Your task to perform on an android device: Show the shopping cart on newegg. Image 0: 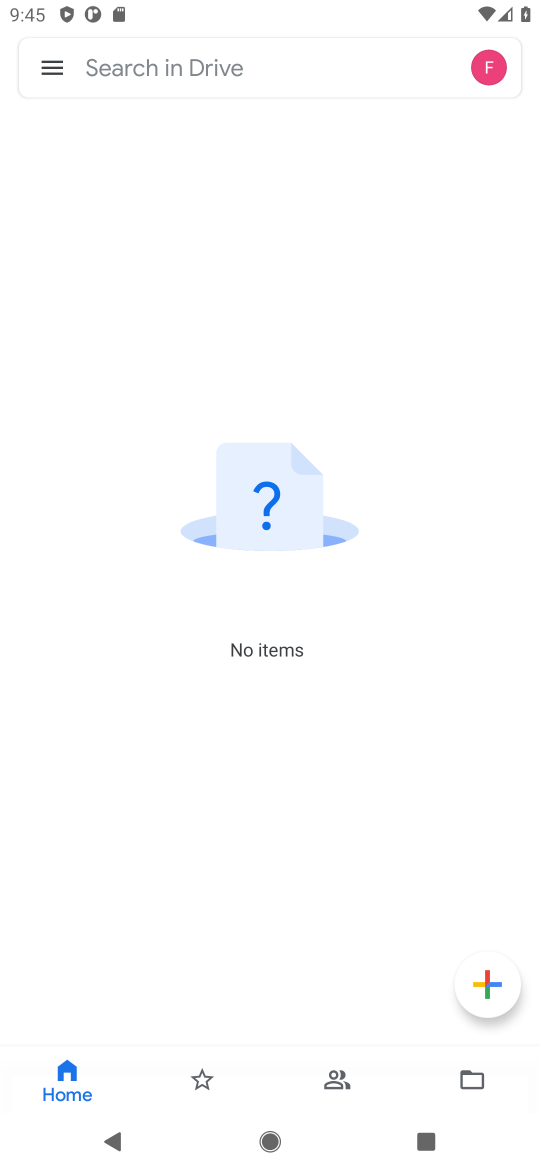
Step 0: press home button
Your task to perform on an android device: Show the shopping cart on newegg. Image 1: 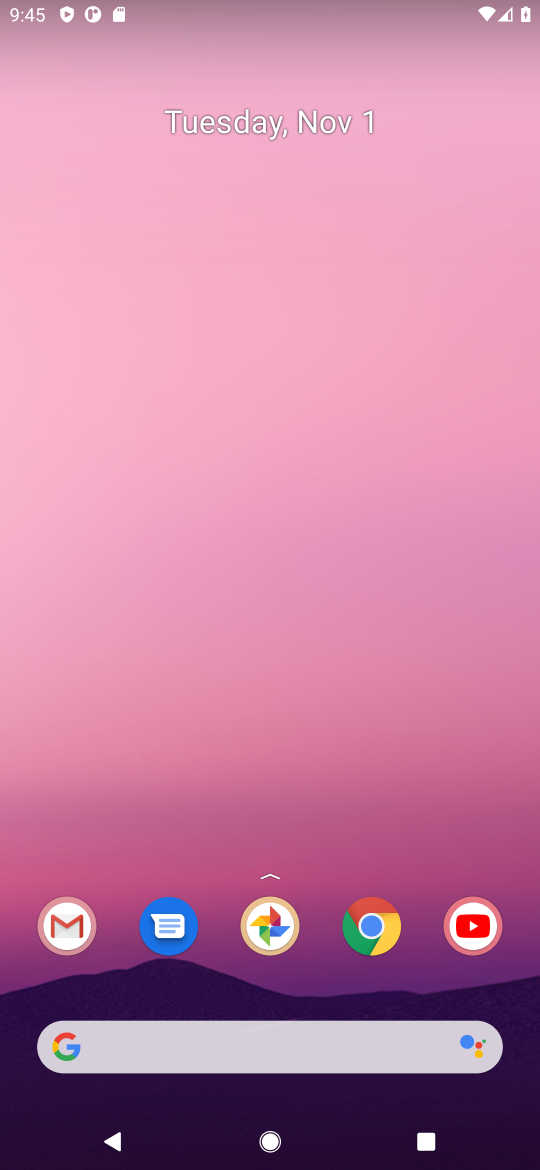
Step 1: click (397, 939)
Your task to perform on an android device: Show the shopping cart on newegg. Image 2: 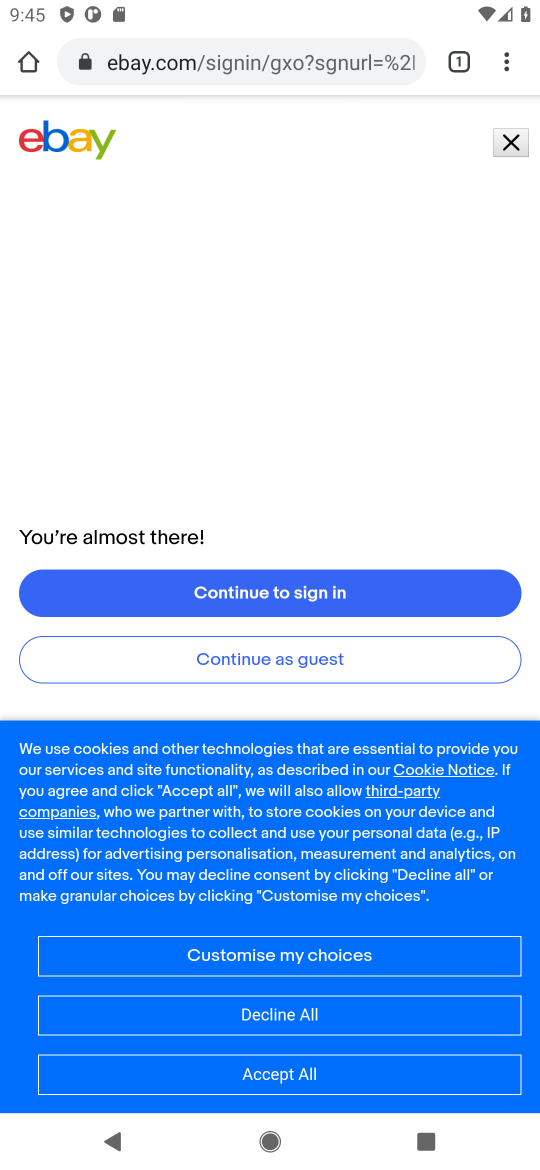
Step 2: click (188, 65)
Your task to perform on an android device: Show the shopping cart on newegg. Image 3: 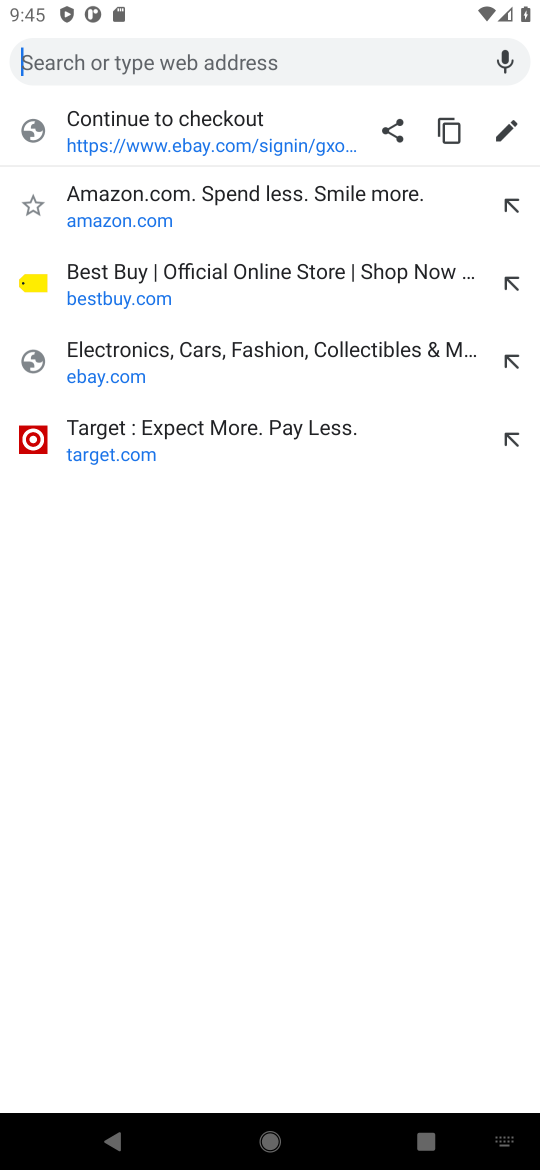
Step 3: type "newegg"
Your task to perform on an android device: Show the shopping cart on newegg. Image 4: 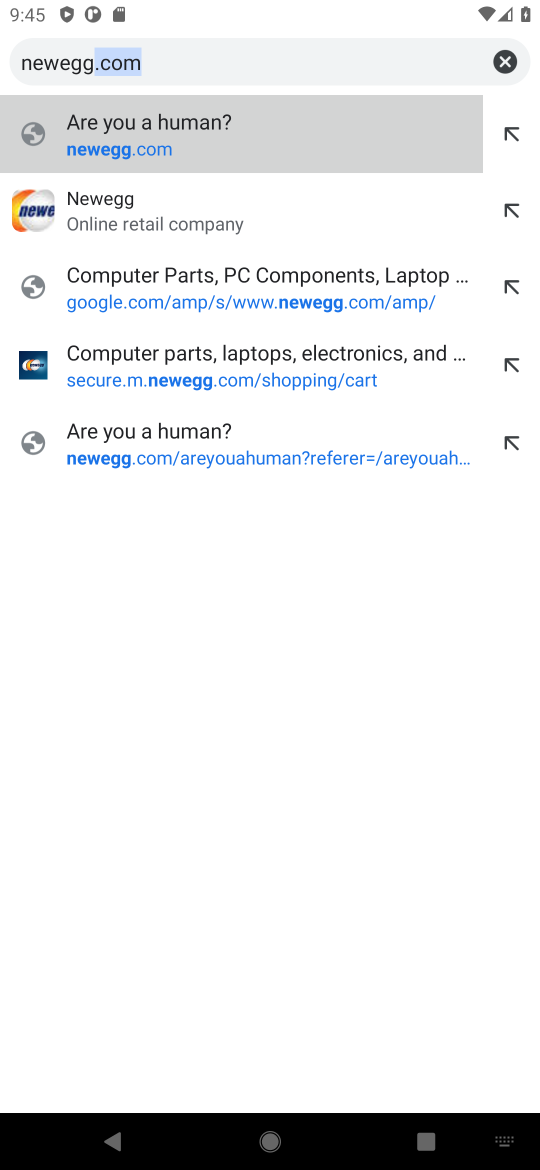
Step 4: type ""
Your task to perform on an android device: Show the shopping cart on newegg. Image 5: 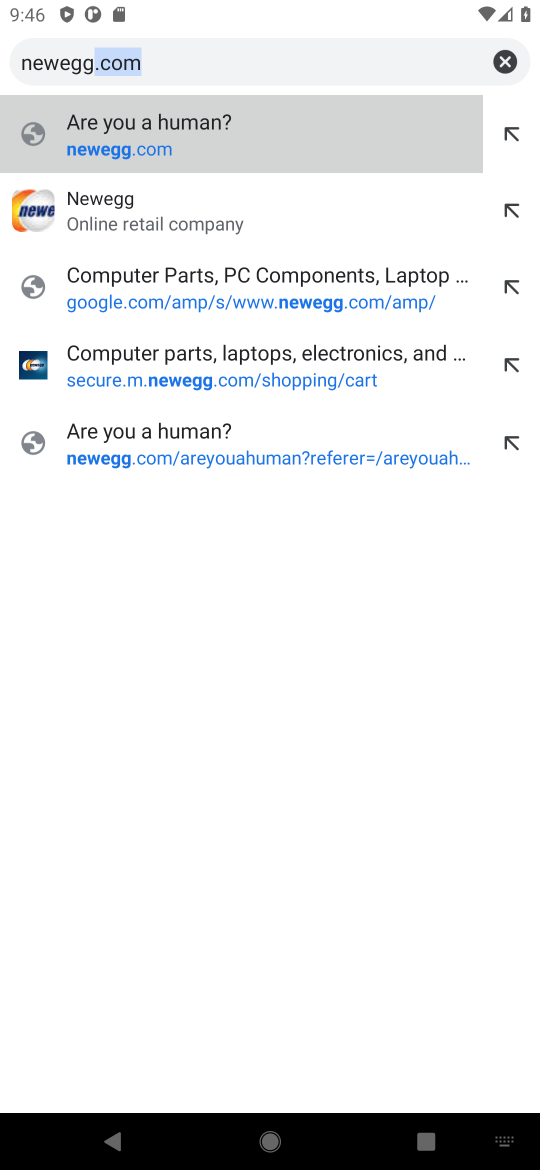
Step 5: click (92, 194)
Your task to perform on an android device: Show the shopping cart on newegg. Image 6: 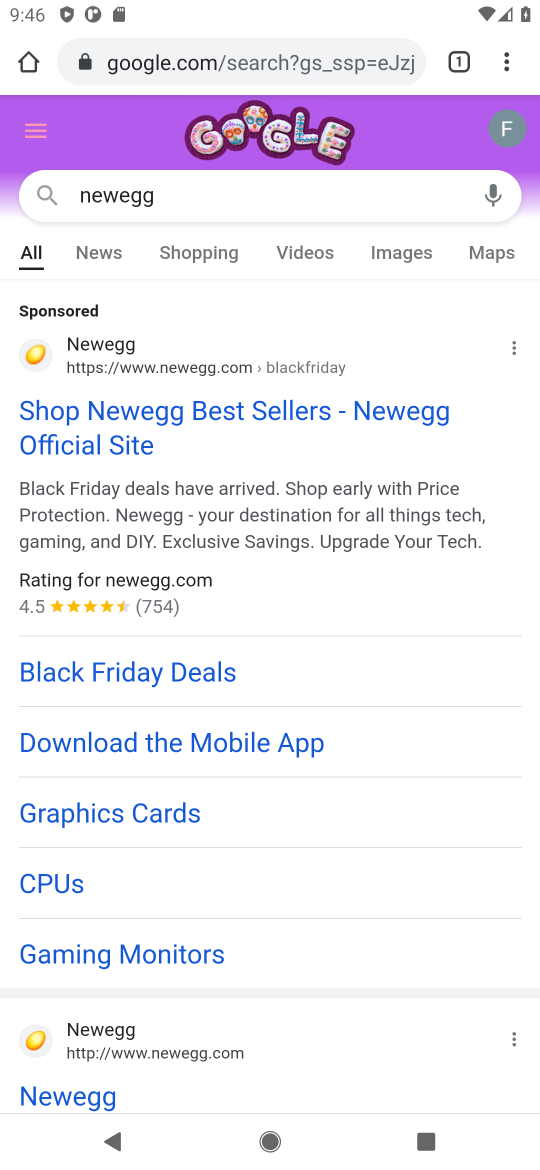
Step 6: drag from (234, 857) to (202, 371)
Your task to perform on an android device: Show the shopping cart on newegg. Image 7: 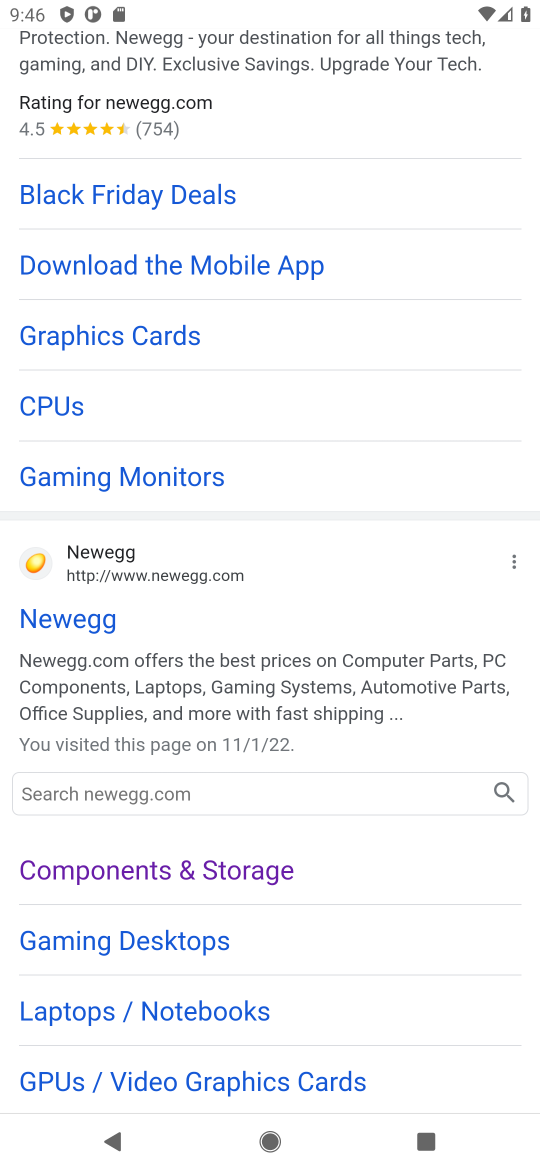
Step 7: click (71, 615)
Your task to perform on an android device: Show the shopping cart on newegg. Image 8: 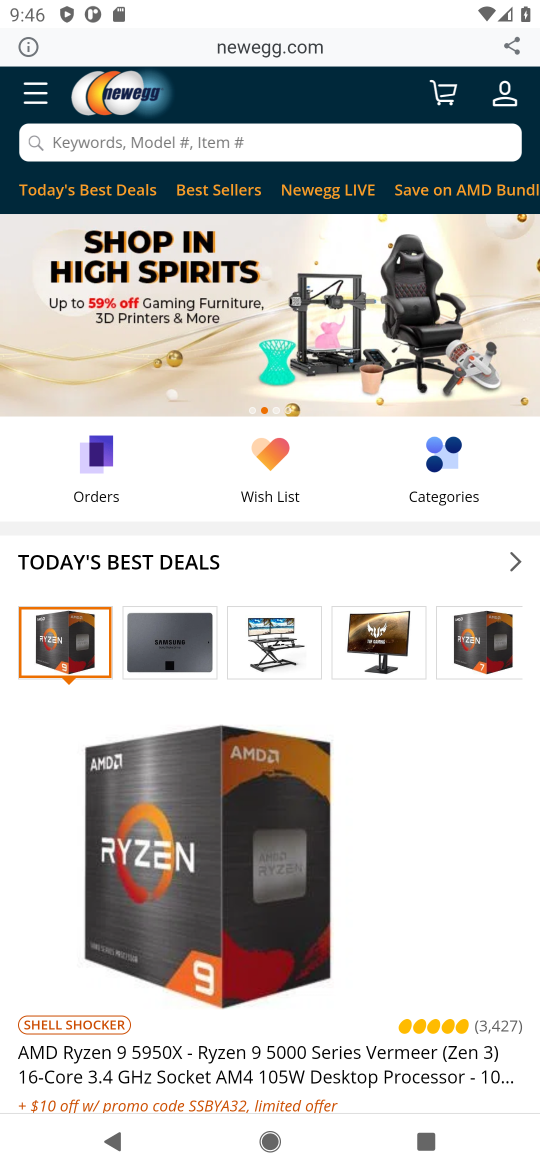
Step 8: click (104, 147)
Your task to perform on an android device: Show the shopping cart on newegg. Image 9: 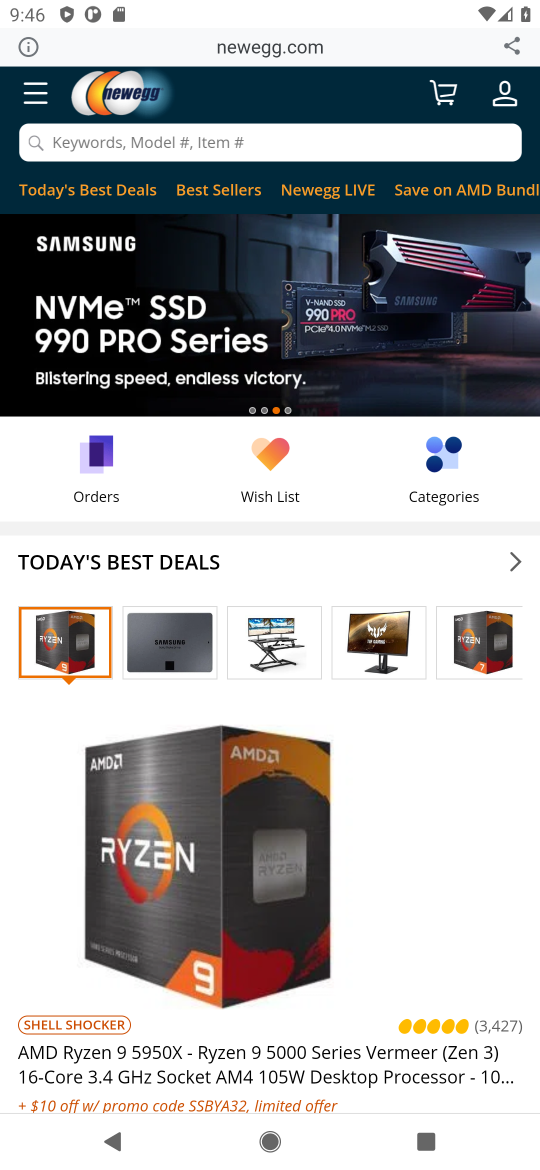
Step 9: click (106, 149)
Your task to perform on an android device: Show the shopping cart on newegg. Image 10: 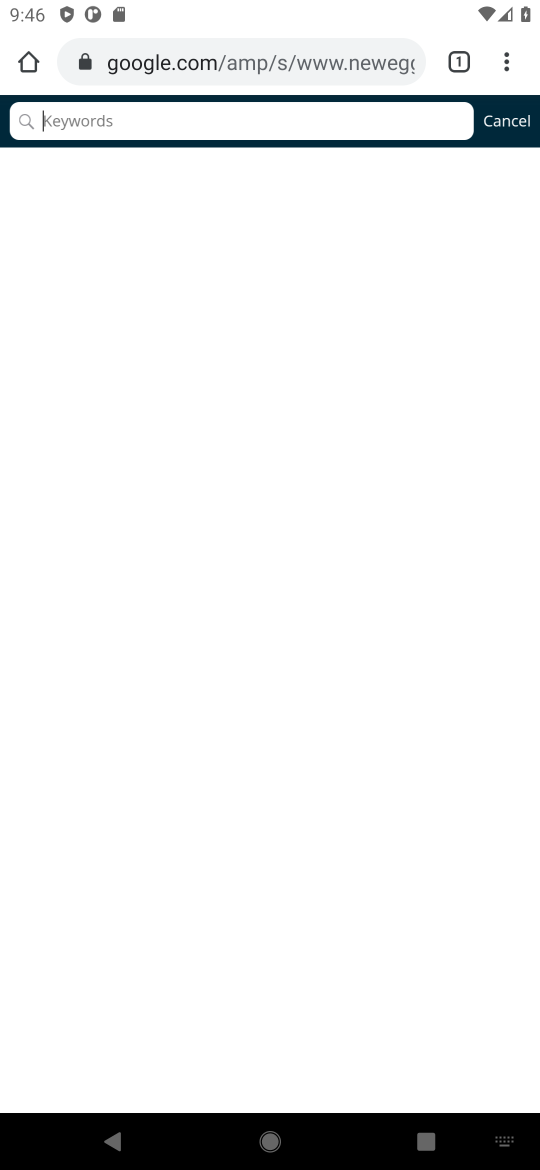
Step 10: press back button
Your task to perform on an android device: Show the shopping cart on newegg. Image 11: 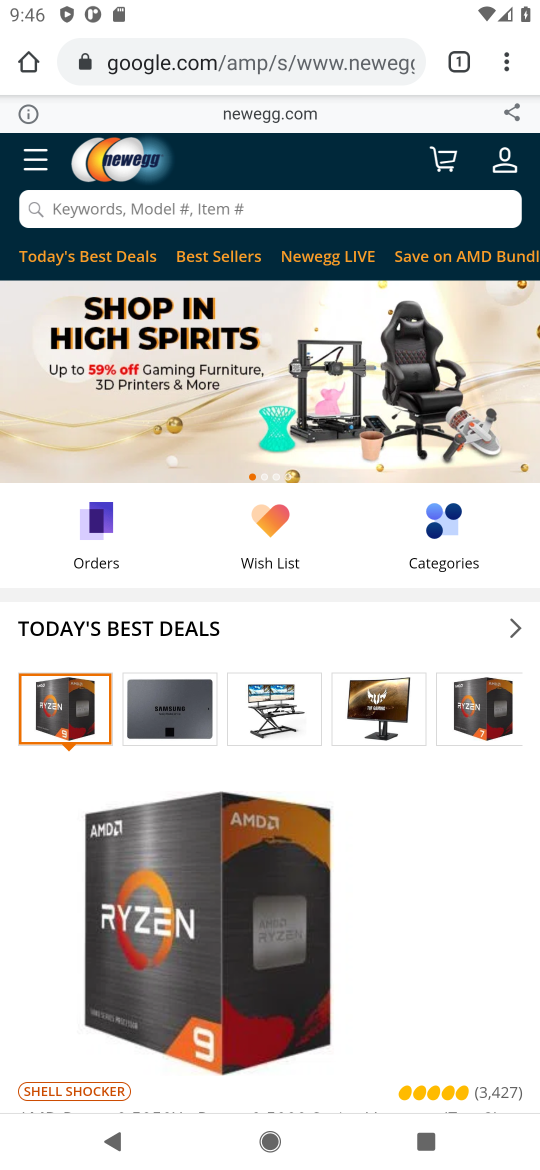
Step 11: click (451, 170)
Your task to perform on an android device: Show the shopping cart on newegg. Image 12: 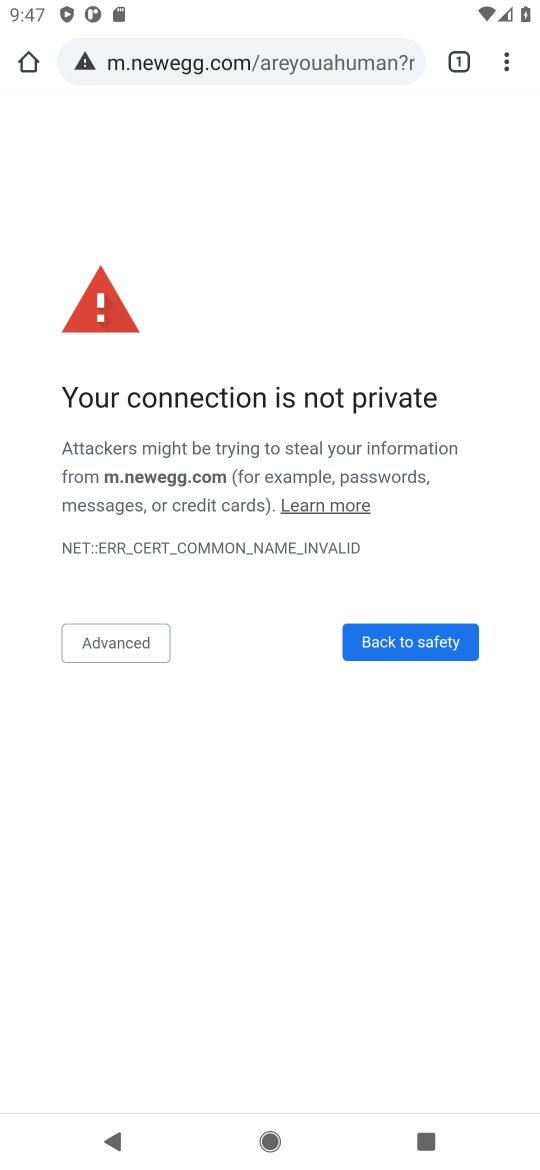
Step 12: press back button
Your task to perform on an android device: Show the shopping cart on newegg. Image 13: 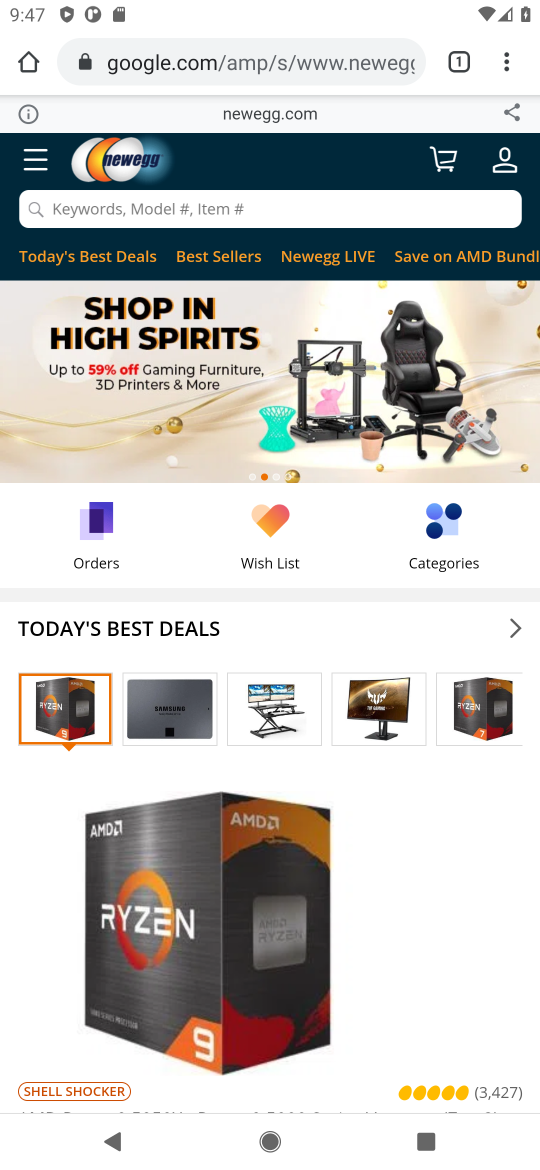
Step 13: click (436, 150)
Your task to perform on an android device: Show the shopping cart on newegg. Image 14: 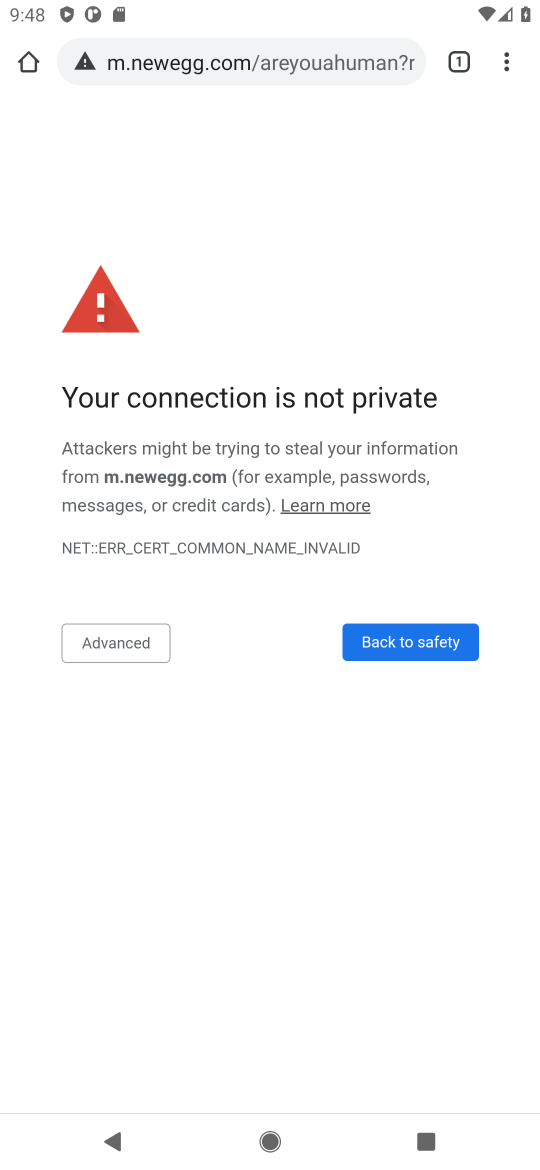
Step 14: task complete